Your task to perform on an android device: uninstall "DoorDash - Dasher" Image 0: 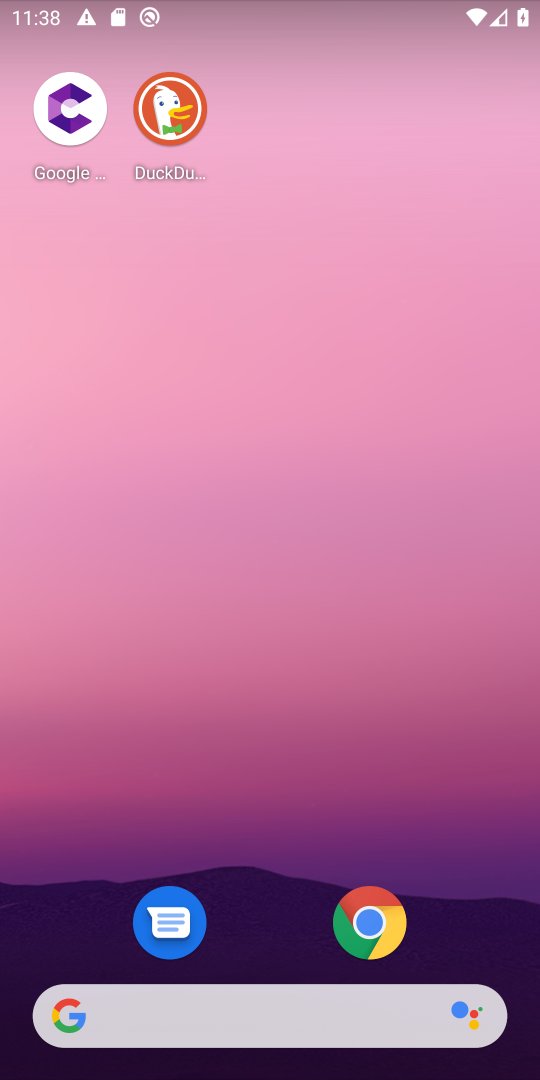
Step 0: drag from (444, 833) to (407, 174)
Your task to perform on an android device: uninstall "DoorDash - Dasher" Image 1: 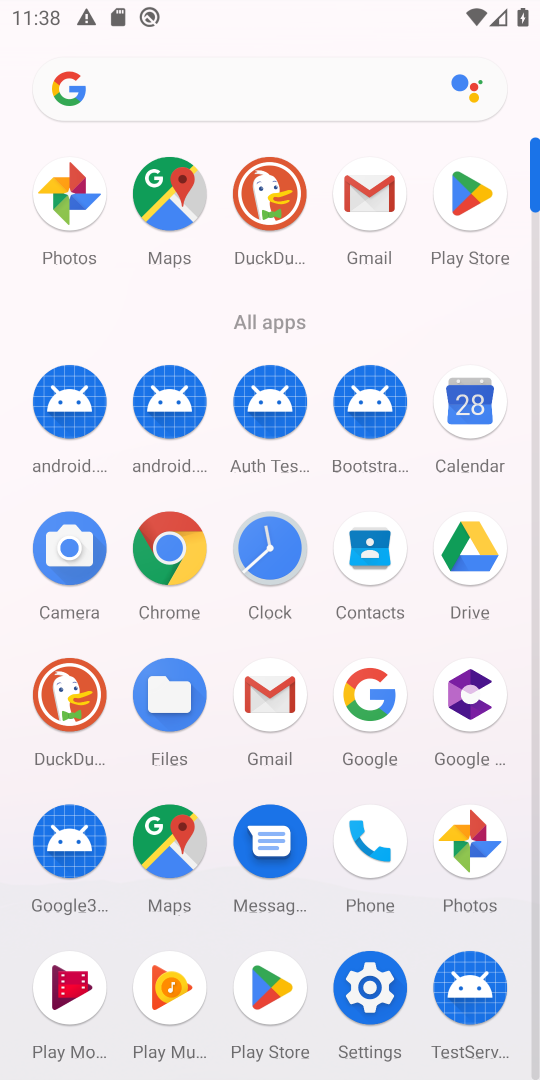
Step 1: click (478, 196)
Your task to perform on an android device: uninstall "DoorDash - Dasher" Image 2: 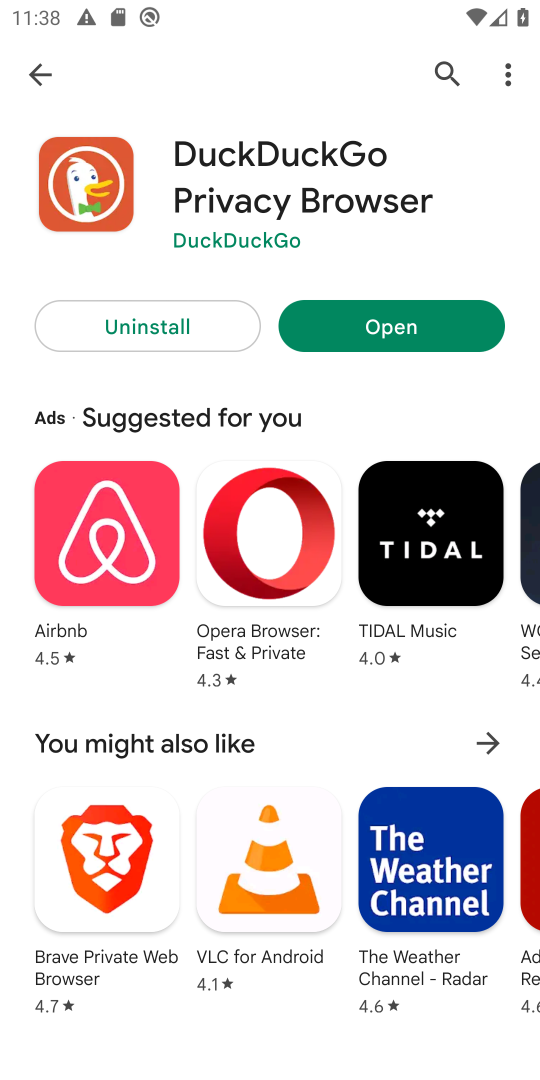
Step 2: click (443, 68)
Your task to perform on an android device: uninstall "DoorDash - Dasher" Image 3: 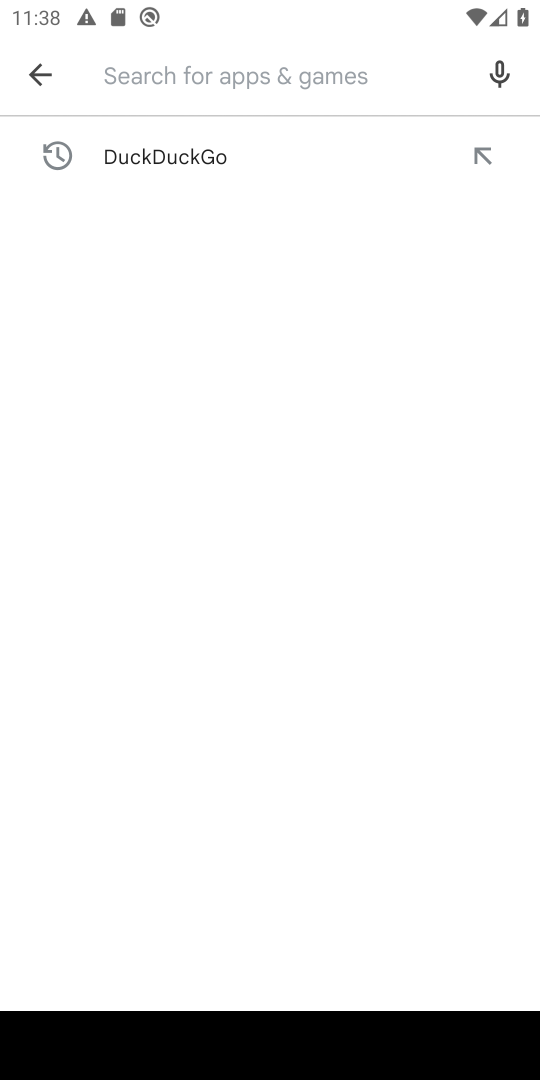
Step 3: type "DoorDaash - Dasher"
Your task to perform on an android device: uninstall "DoorDash - Dasher" Image 4: 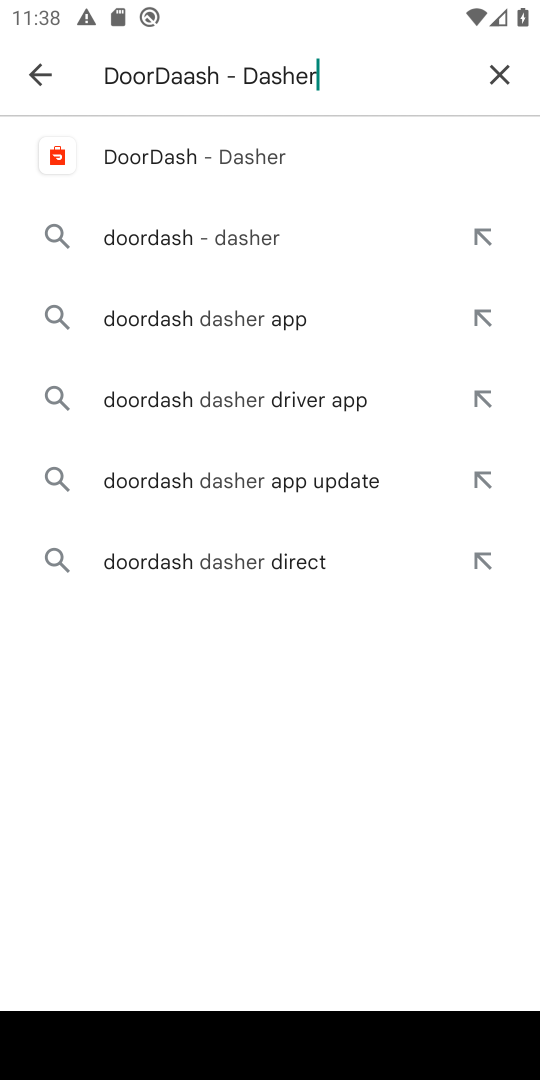
Step 4: click (282, 165)
Your task to perform on an android device: uninstall "DoorDash - Dasher" Image 5: 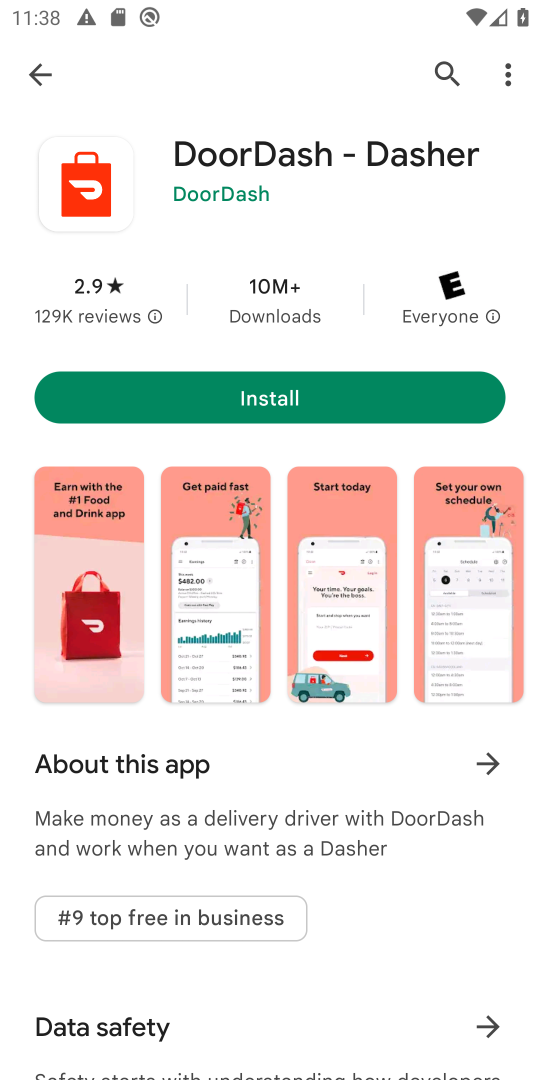
Step 5: task complete